Your task to perform on an android device: Open Chrome and go to the settings page Image 0: 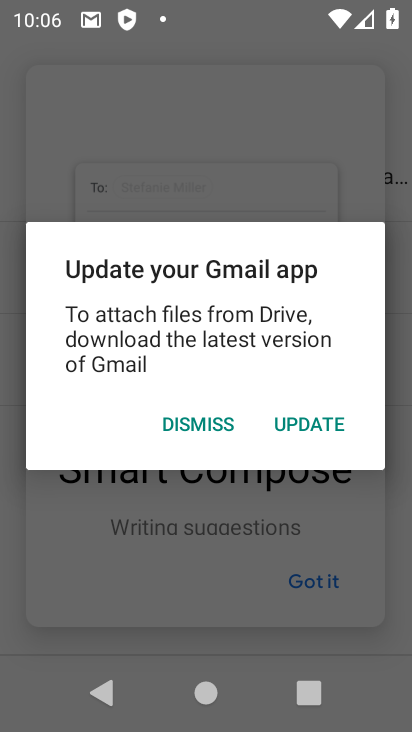
Step 0: click (198, 420)
Your task to perform on an android device: Open Chrome and go to the settings page Image 1: 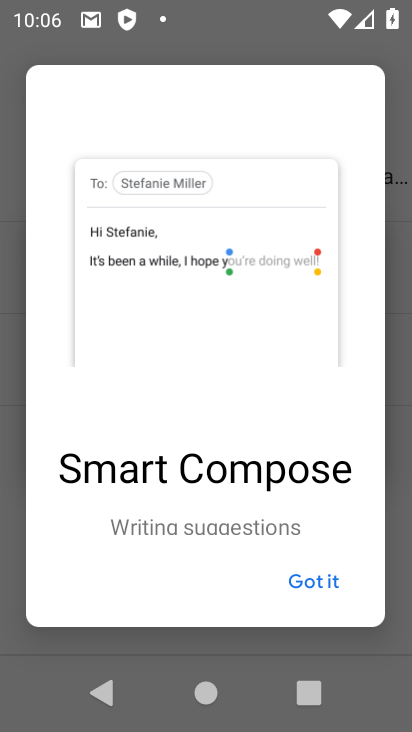
Step 1: click (327, 585)
Your task to perform on an android device: Open Chrome and go to the settings page Image 2: 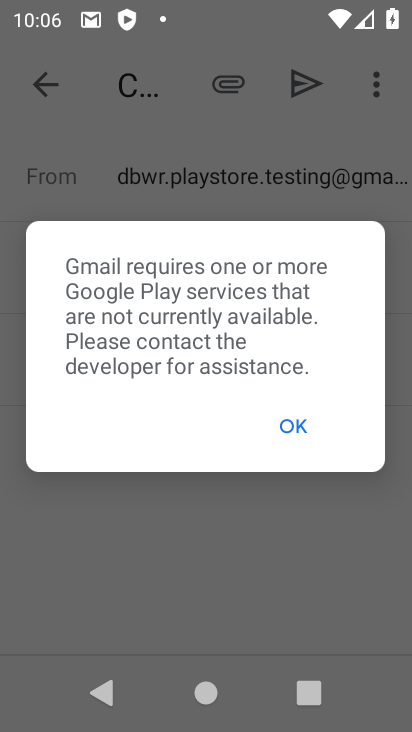
Step 2: press home button
Your task to perform on an android device: Open Chrome and go to the settings page Image 3: 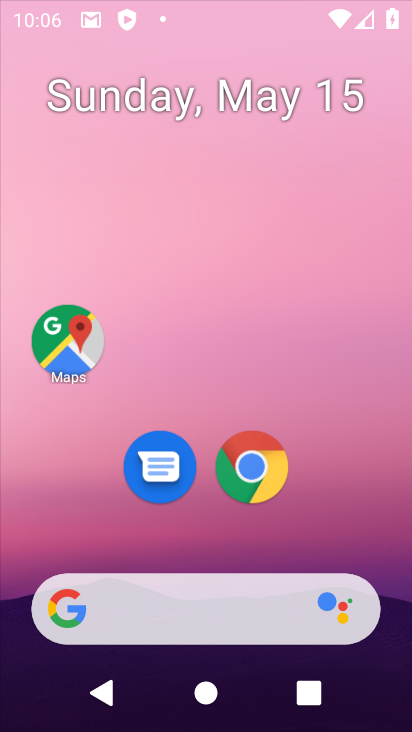
Step 3: drag from (186, 565) to (203, 132)
Your task to perform on an android device: Open Chrome and go to the settings page Image 4: 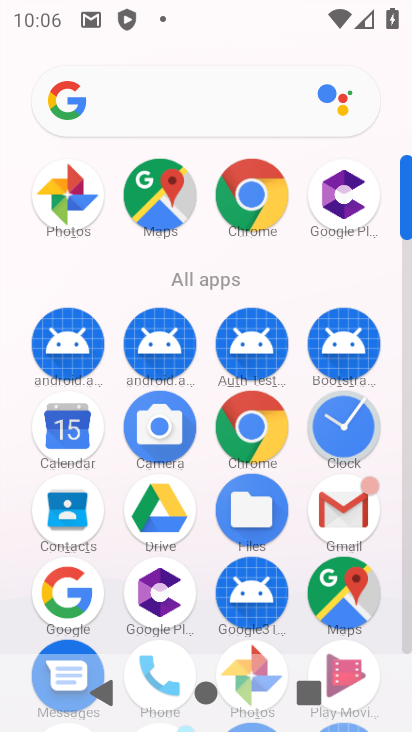
Step 4: click (252, 417)
Your task to perform on an android device: Open Chrome and go to the settings page Image 5: 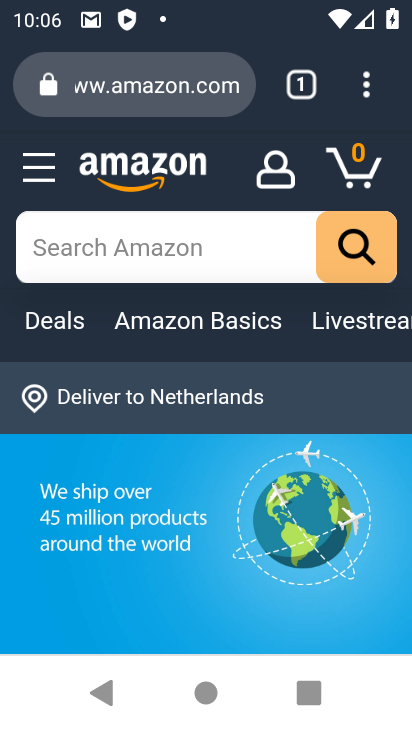
Step 5: click (375, 81)
Your task to perform on an android device: Open Chrome and go to the settings page Image 6: 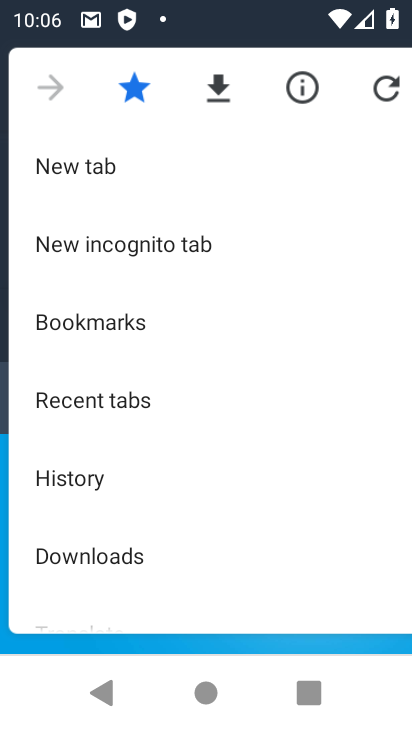
Step 6: drag from (117, 522) to (218, 45)
Your task to perform on an android device: Open Chrome and go to the settings page Image 7: 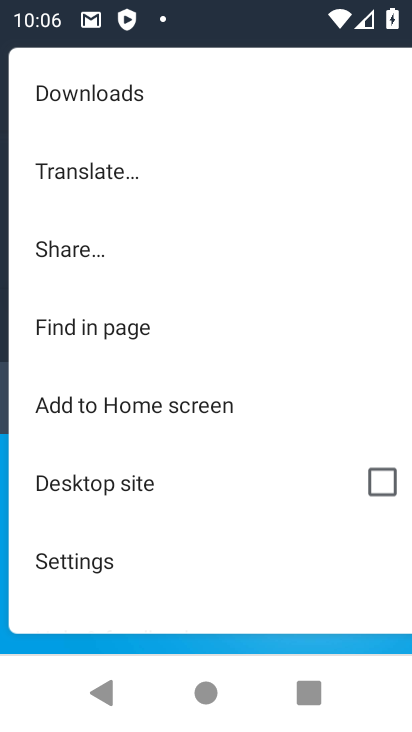
Step 7: click (108, 552)
Your task to perform on an android device: Open Chrome and go to the settings page Image 8: 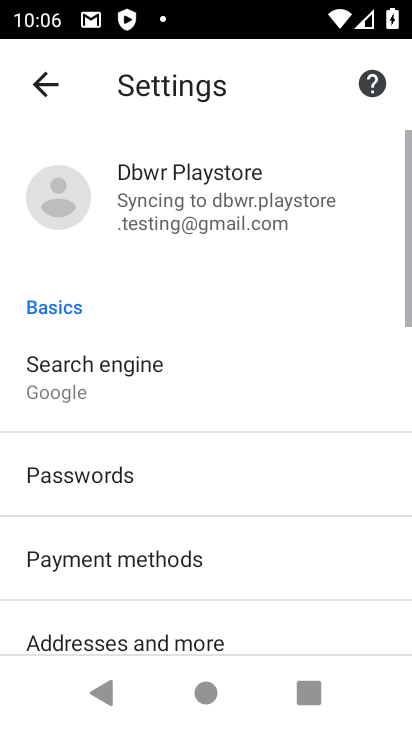
Step 8: task complete